Your task to perform on an android device: Add "usb-c to usb-b" to the cart on target, then select checkout. Image 0: 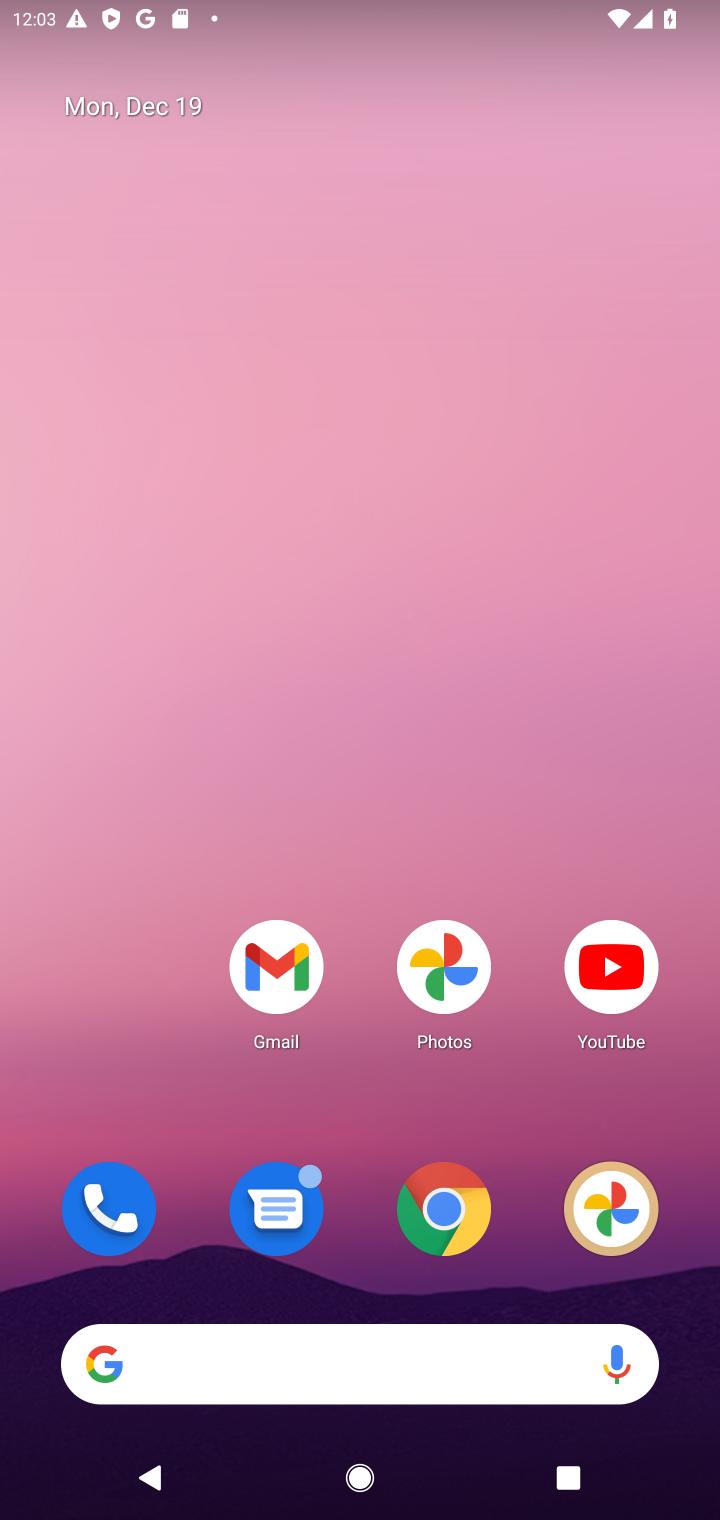
Step 0: task complete